Your task to perform on an android device: Go to location settings Image 0: 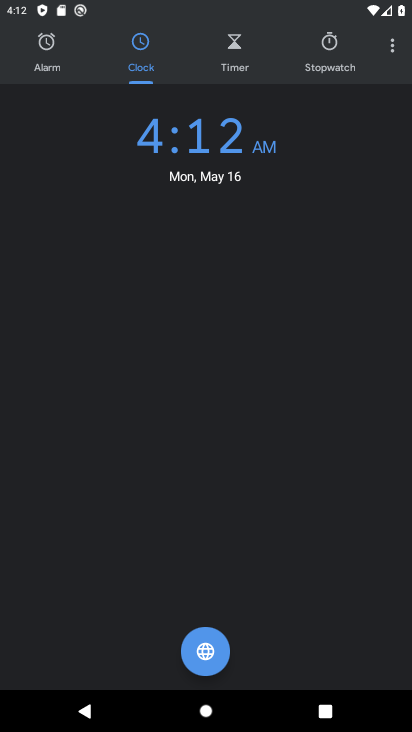
Step 0: press back button
Your task to perform on an android device: Go to location settings Image 1: 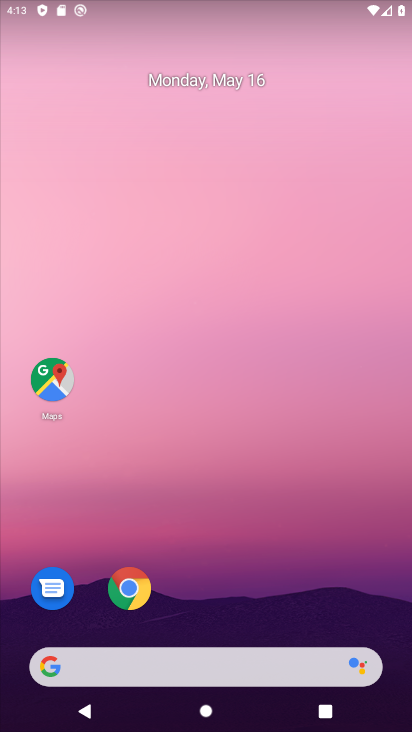
Step 1: drag from (269, 613) to (260, 0)
Your task to perform on an android device: Go to location settings Image 2: 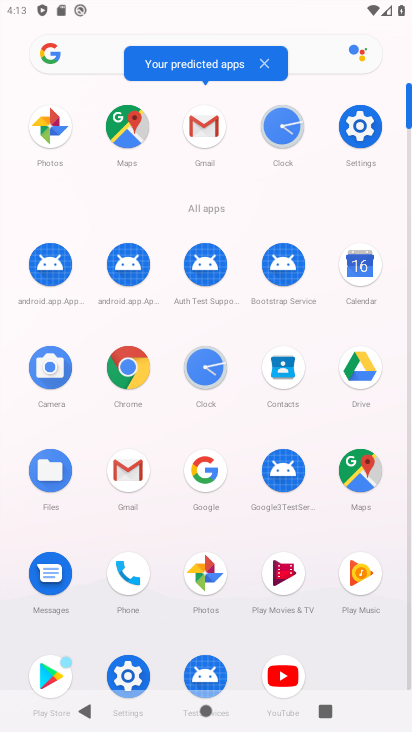
Step 2: click (129, 675)
Your task to perform on an android device: Go to location settings Image 3: 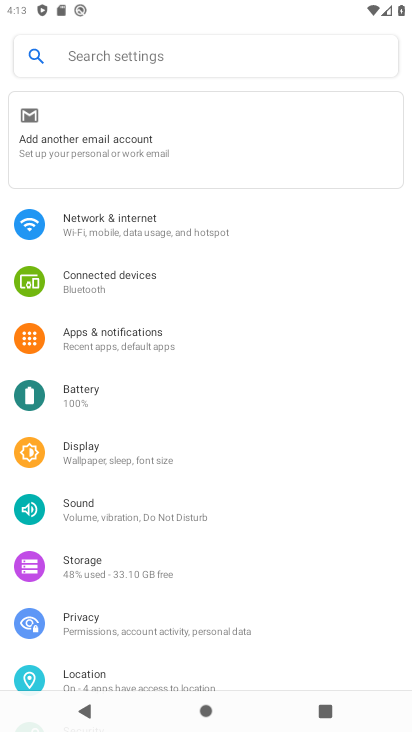
Step 3: drag from (187, 558) to (224, 215)
Your task to perform on an android device: Go to location settings Image 4: 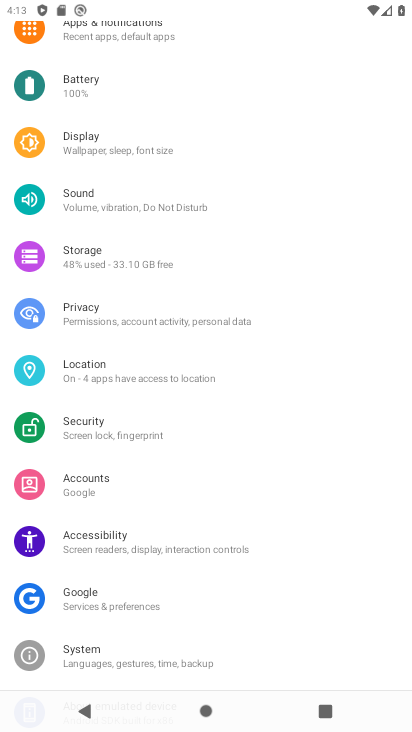
Step 4: click (168, 373)
Your task to perform on an android device: Go to location settings Image 5: 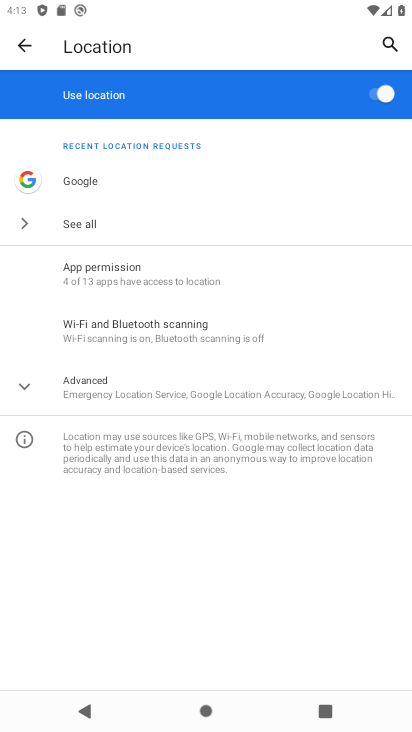
Step 5: click (42, 384)
Your task to perform on an android device: Go to location settings Image 6: 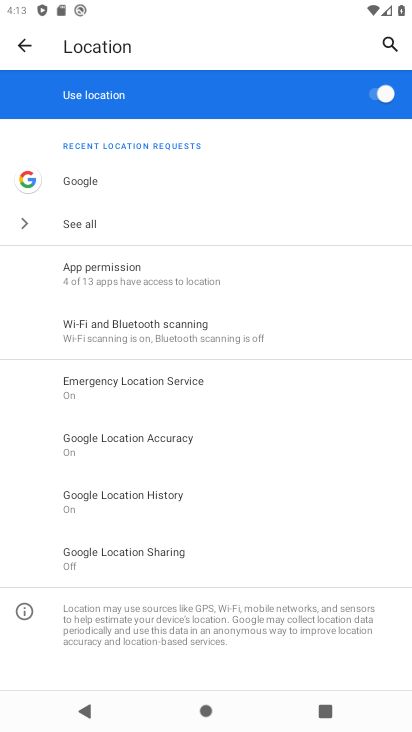
Step 6: task complete